Your task to perform on an android device: turn pop-ups off in chrome Image 0: 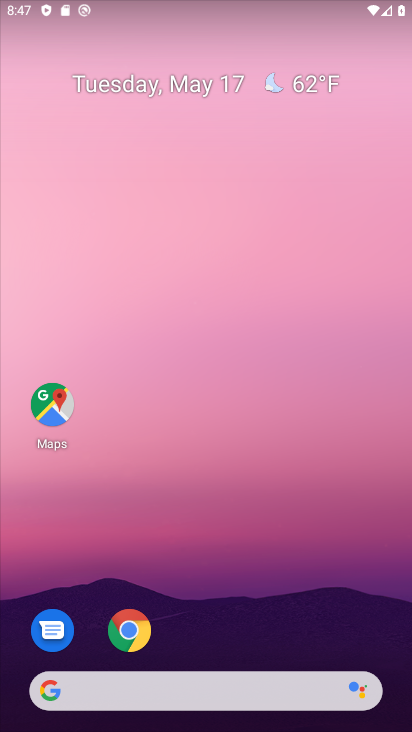
Step 0: click (128, 627)
Your task to perform on an android device: turn pop-ups off in chrome Image 1: 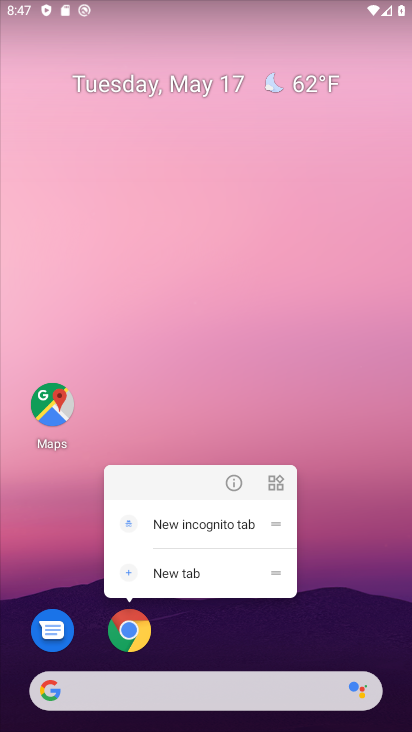
Step 1: click (131, 648)
Your task to perform on an android device: turn pop-ups off in chrome Image 2: 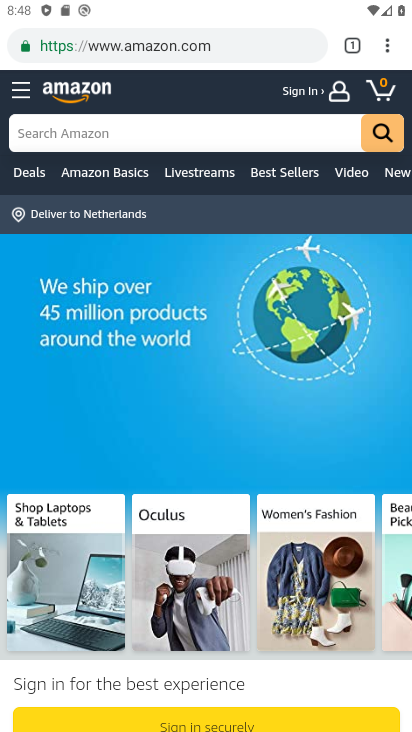
Step 2: click (389, 49)
Your task to perform on an android device: turn pop-ups off in chrome Image 3: 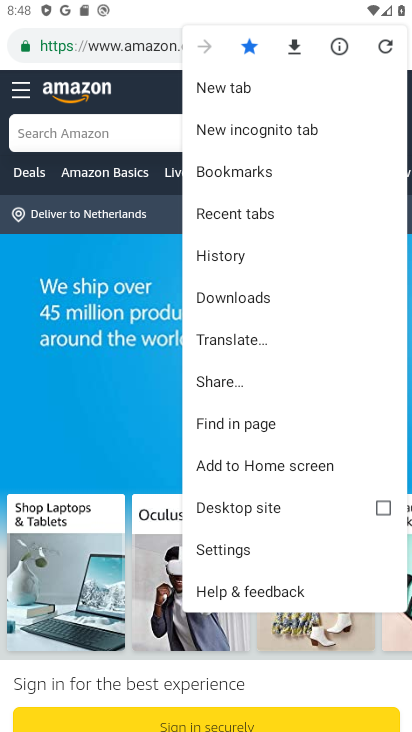
Step 3: click (252, 552)
Your task to perform on an android device: turn pop-ups off in chrome Image 4: 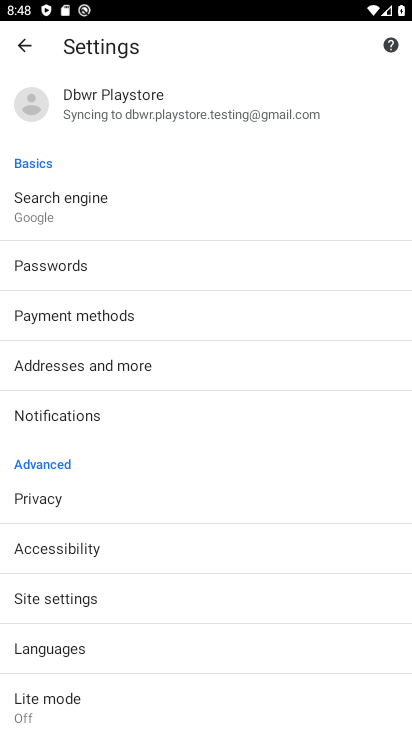
Step 4: click (49, 616)
Your task to perform on an android device: turn pop-ups off in chrome Image 5: 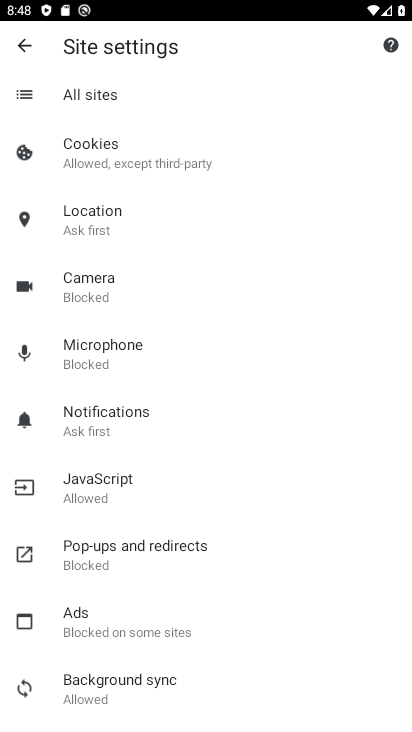
Step 5: click (114, 558)
Your task to perform on an android device: turn pop-ups off in chrome Image 6: 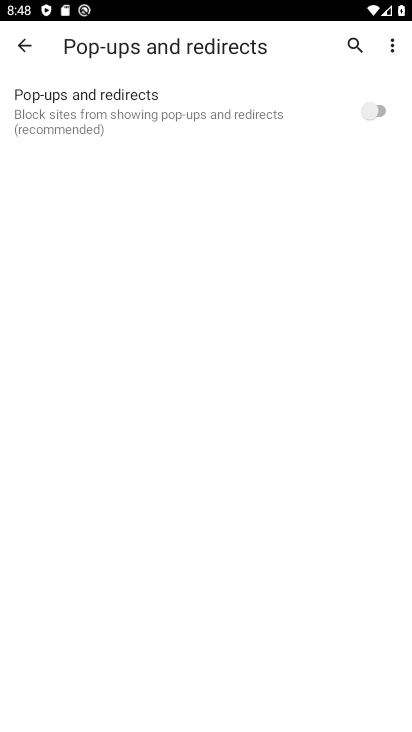
Step 6: task complete